Your task to perform on an android device: toggle location history Image 0: 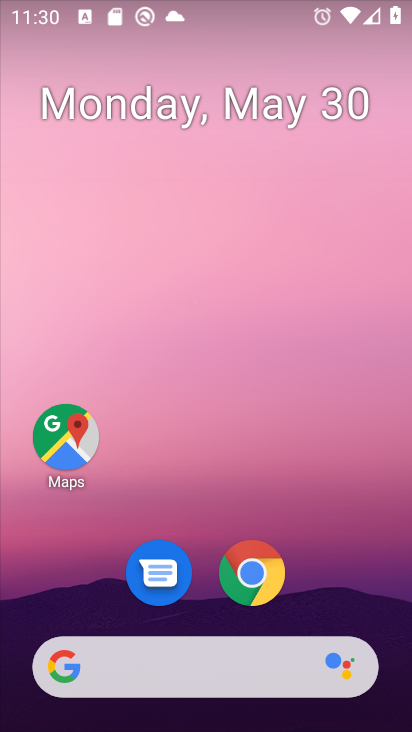
Step 0: drag from (244, 670) to (309, 170)
Your task to perform on an android device: toggle location history Image 1: 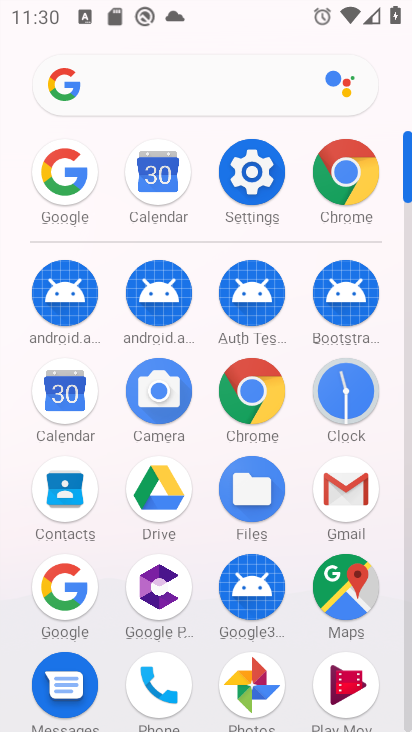
Step 1: press home button
Your task to perform on an android device: toggle location history Image 2: 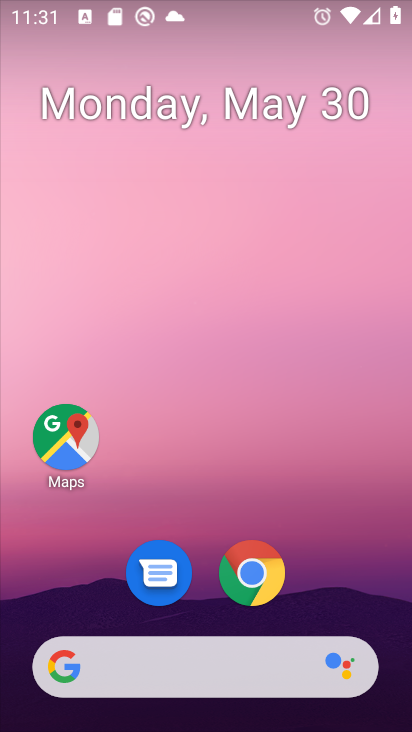
Step 2: drag from (255, 686) to (279, 27)
Your task to perform on an android device: toggle location history Image 3: 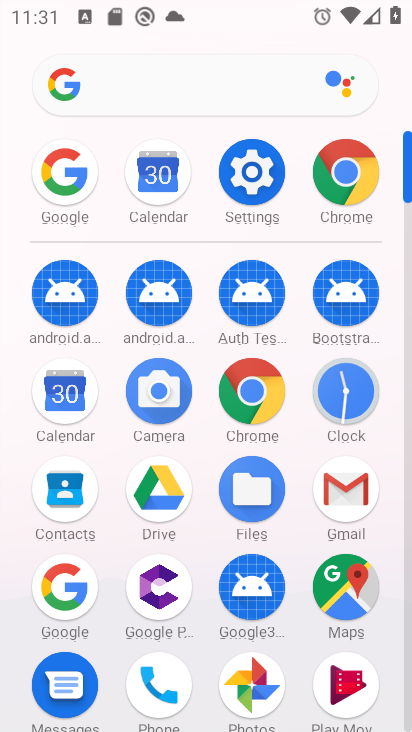
Step 3: click (288, 159)
Your task to perform on an android device: toggle location history Image 4: 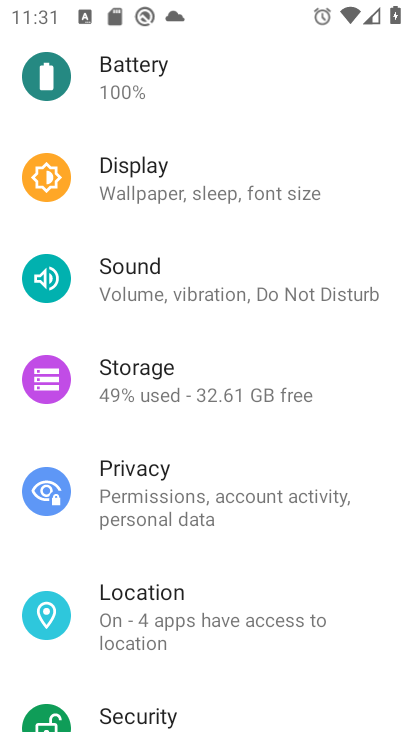
Step 4: click (181, 628)
Your task to perform on an android device: toggle location history Image 5: 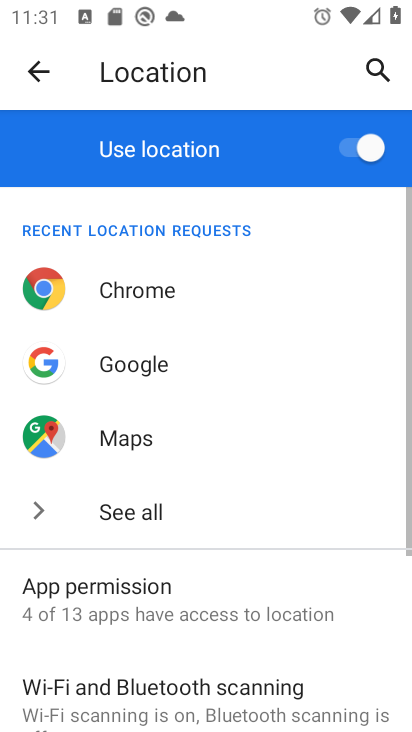
Step 5: click (176, 506)
Your task to perform on an android device: toggle location history Image 6: 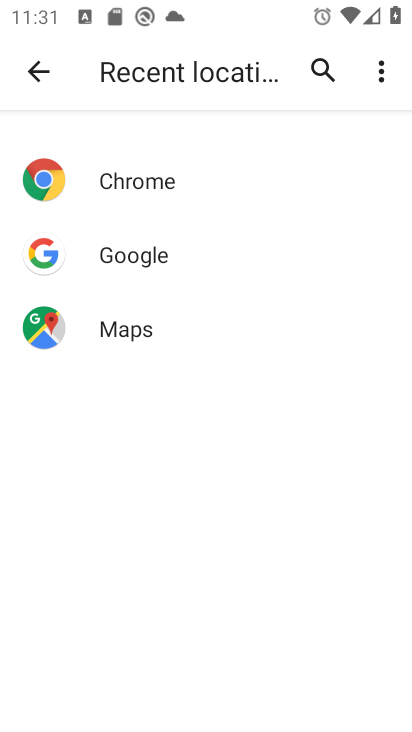
Step 6: click (56, 69)
Your task to perform on an android device: toggle location history Image 7: 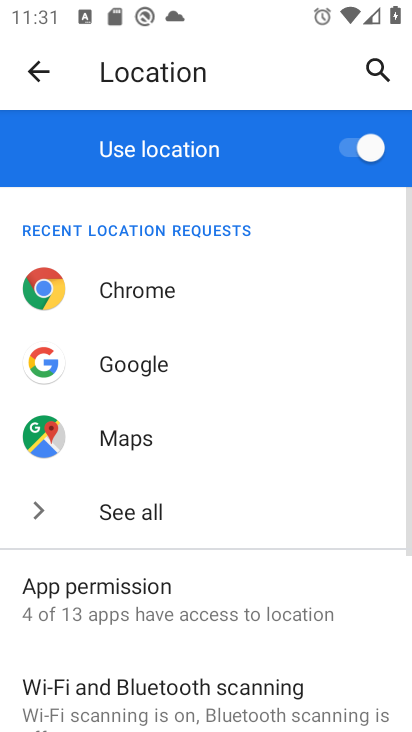
Step 7: drag from (127, 618) to (136, 242)
Your task to perform on an android device: toggle location history Image 8: 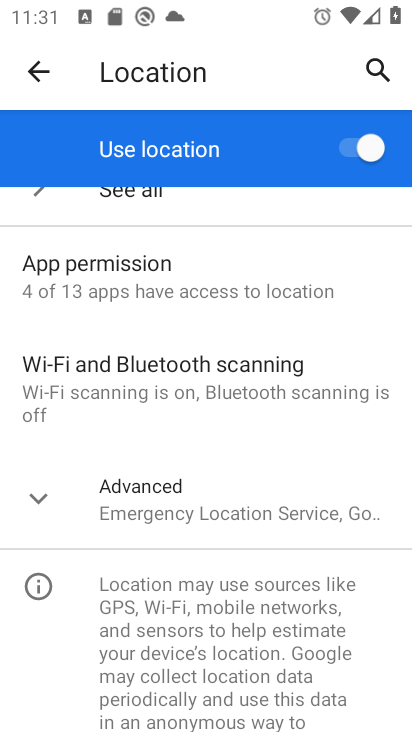
Step 8: click (195, 515)
Your task to perform on an android device: toggle location history Image 9: 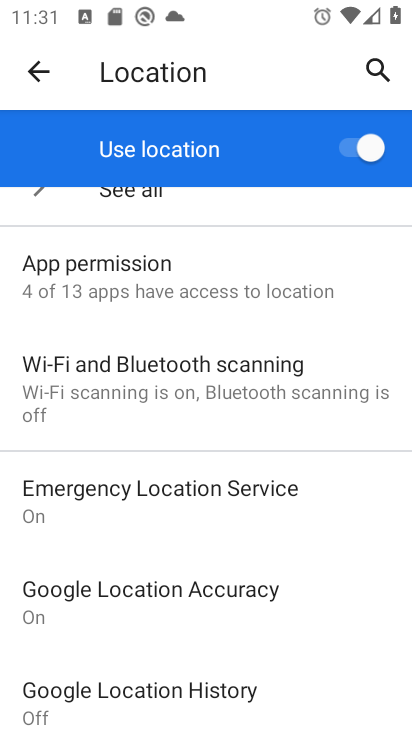
Step 9: drag from (217, 683) to (224, 591)
Your task to perform on an android device: toggle location history Image 10: 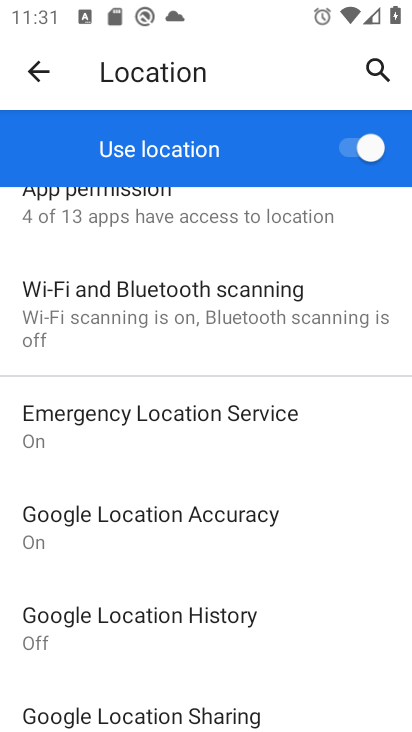
Step 10: click (224, 627)
Your task to perform on an android device: toggle location history Image 11: 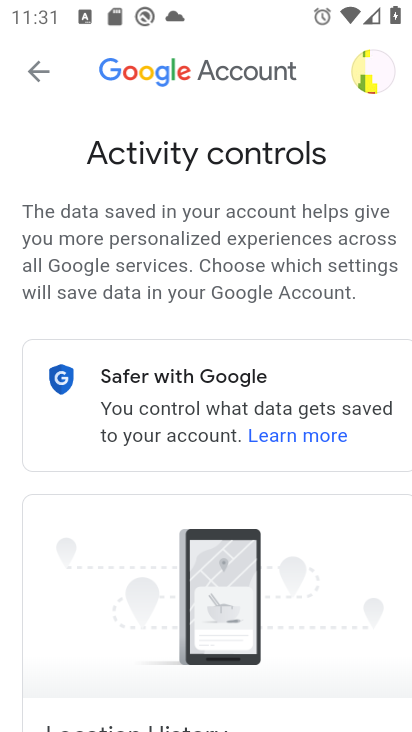
Step 11: drag from (269, 562) to (112, 269)
Your task to perform on an android device: toggle location history Image 12: 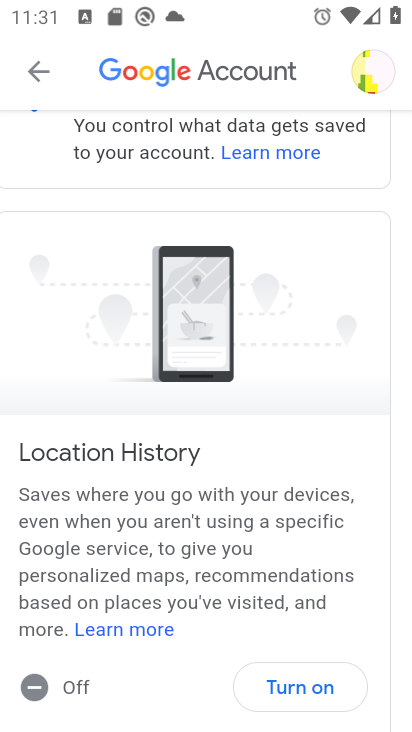
Step 12: click (314, 698)
Your task to perform on an android device: toggle location history Image 13: 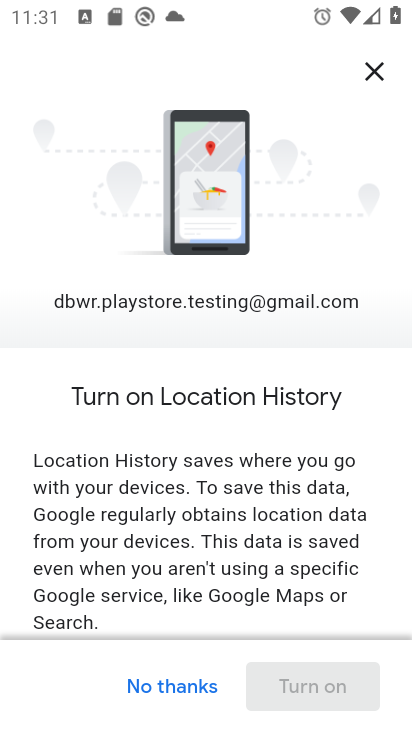
Step 13: drag from (259, 490) to (272, 7)
Your task to perform on an android device: toggle location history Image 14: 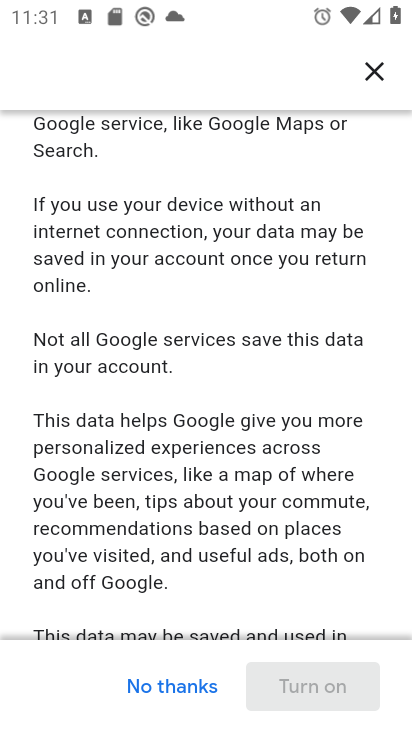
Step 14: drag from (303, 505) to (313, 0)
Your task to perform on an android device: toggle location history Image 15: 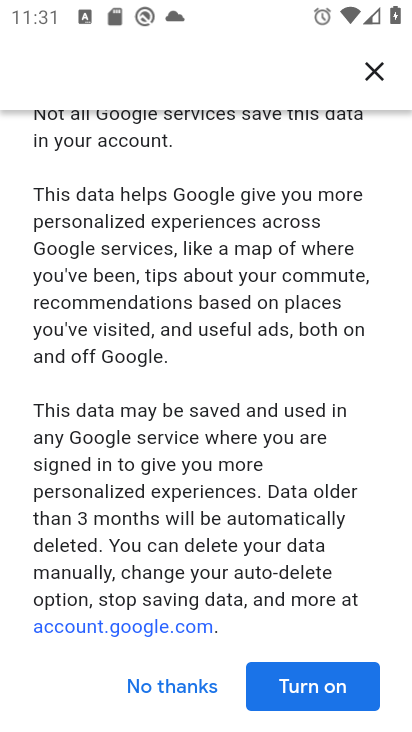
Step 15: click (323, 697)
Your task to perform on an android device: toggle location history Image 16: 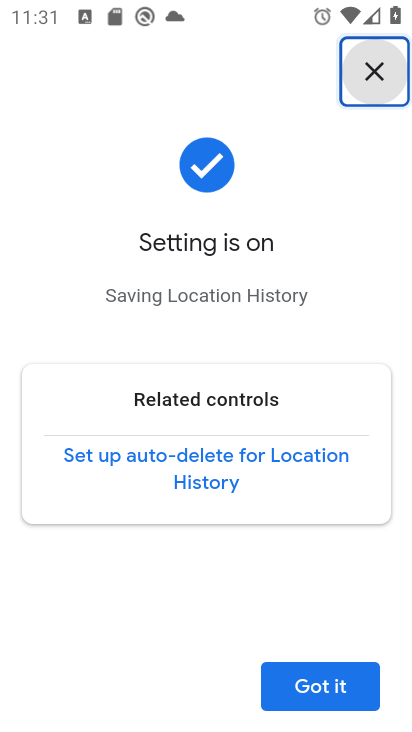
Step 16: click (308, 703)
Your task to perform on an android device: toggle location history Image 17: 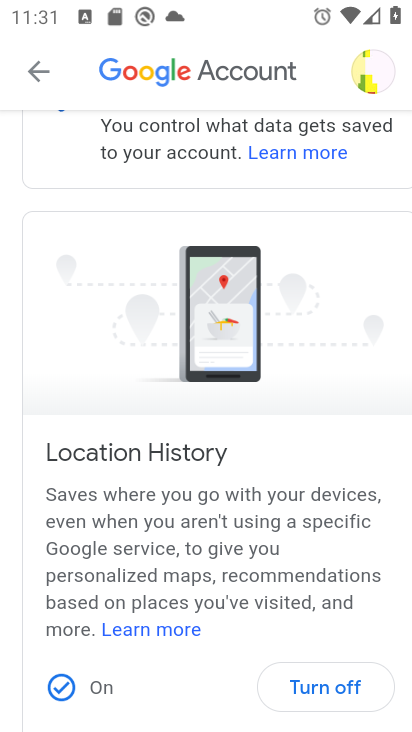
Step 17: task complete